Your task to perform on an android device: Open Reddit.com Image 0: 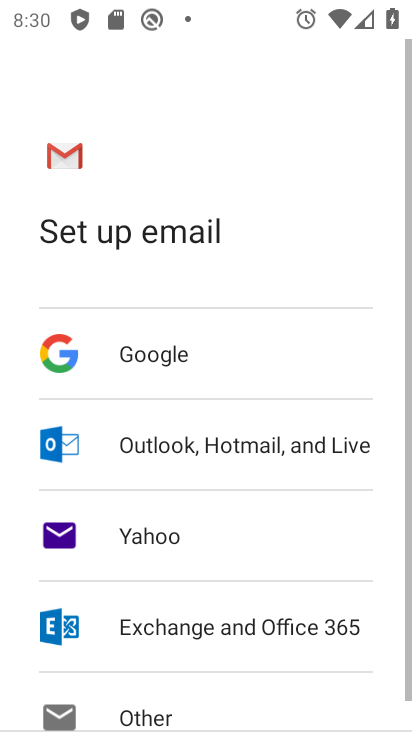
Step 0: press home button
Your task to perform on an android device: Open Reddit.com Image 1: 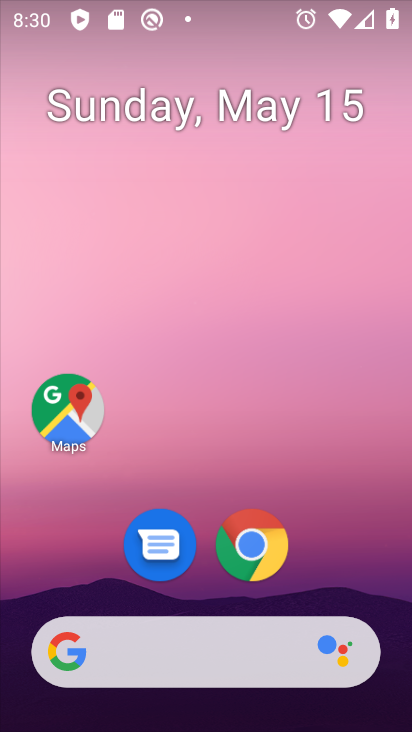
Step 1: drag from (371, 549) to (375, 43)
Your task to perform on an android device: Open Reddit.com Image 2: 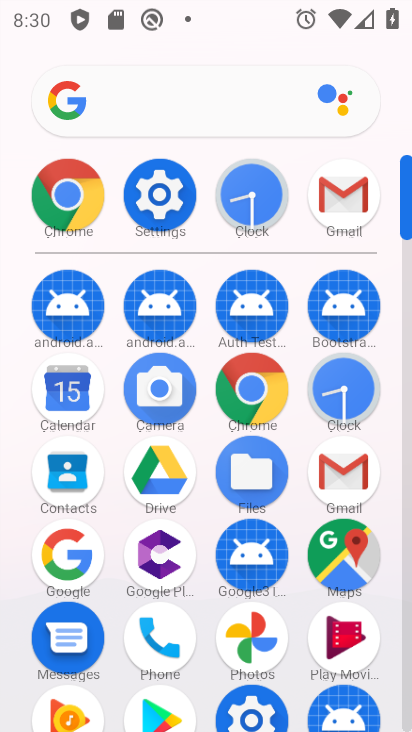
Step 2: click (267, 402)
Your task to perform on an android device: Open Reddit.com Image 3: 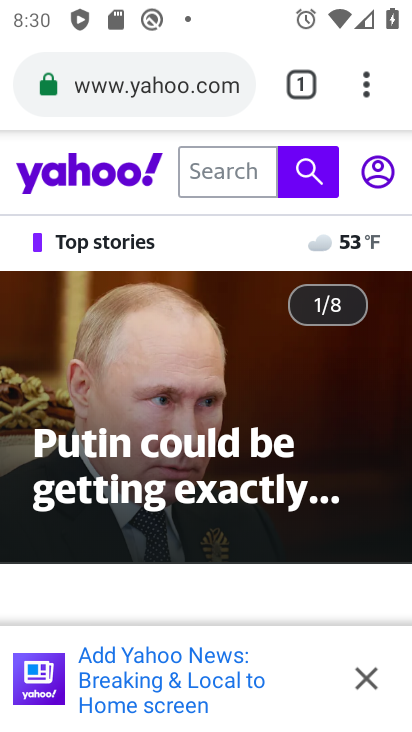
Step 3: click (194, 101)
Your task to perform on an android device: Open Reddit.com Image 4: 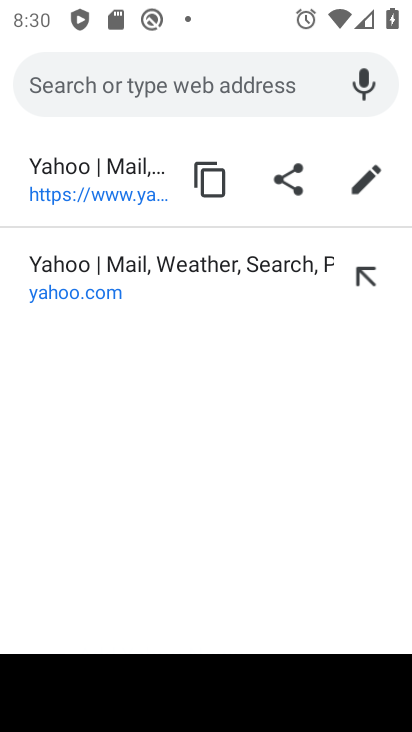
Step 4: type "reddit.com"
Your task to perform on an android device: Open Reddit.com Image 5: 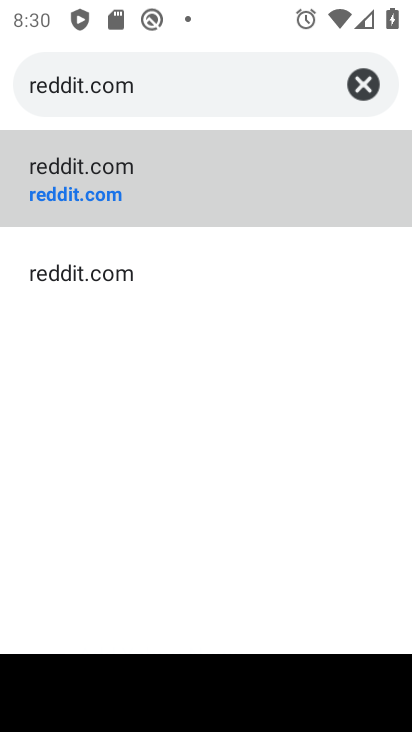
Step 5: click (154, 205)
Your task to perform on an android device: Open Reddit.com Image 6: 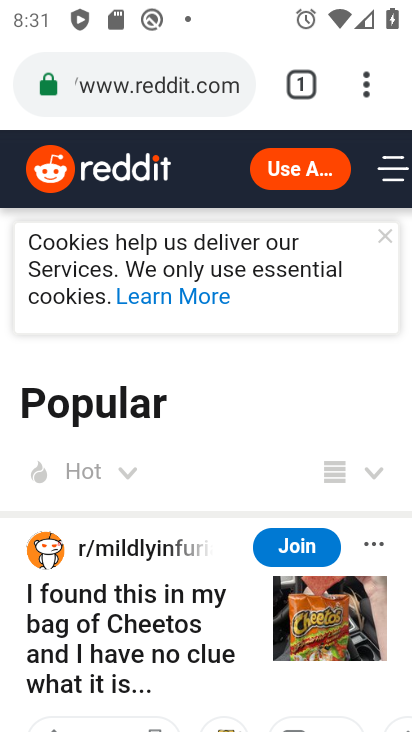
Step 6: task complete